Your task to perform on an android device: Show me the alarms in the clock app Image 0: 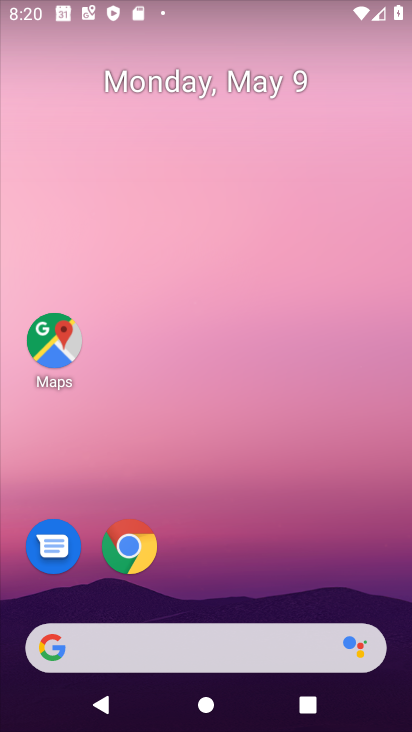
Step 0: drag from (261, 670) to (223, 47)
Your task to perform on an android device: Show me the alarms in the clock app Image 1: 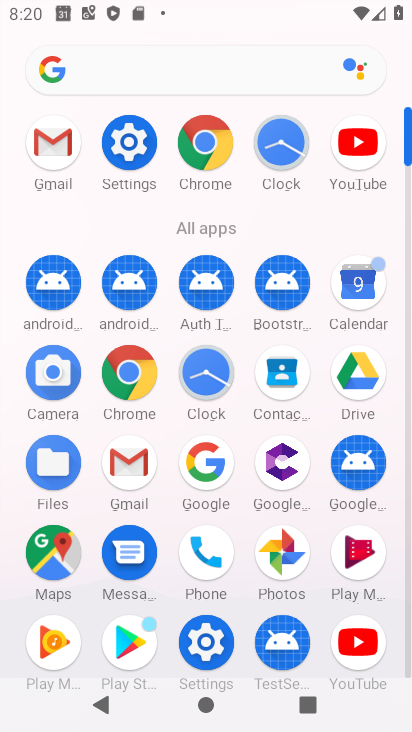
Step 1: click (197, 384)
Your task to perform on an android device: Show me the alarms in the clock app Image 2: 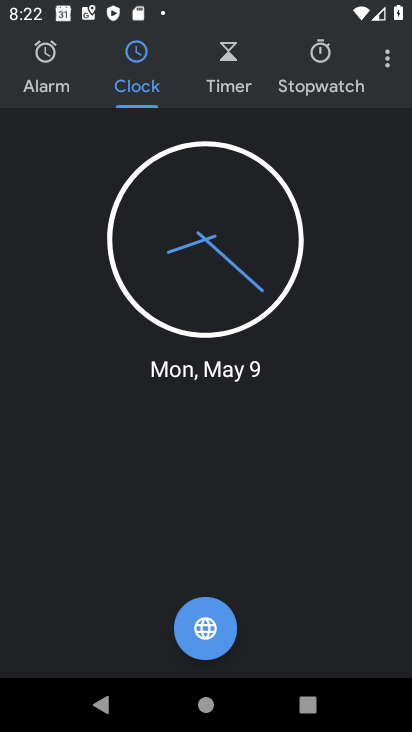
Step 2: click (61, 71)
Your task to perform on an android device: Show me the alarms in the clock app Image 3: 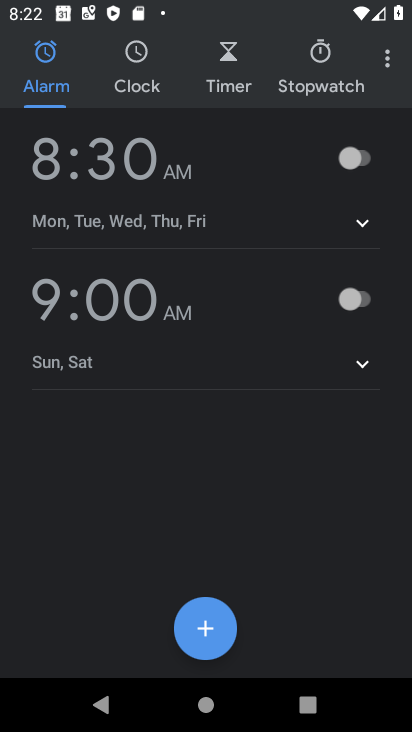
Step 3: task complete